Your task to perform on an android device: Go to privacy settings Image 0: 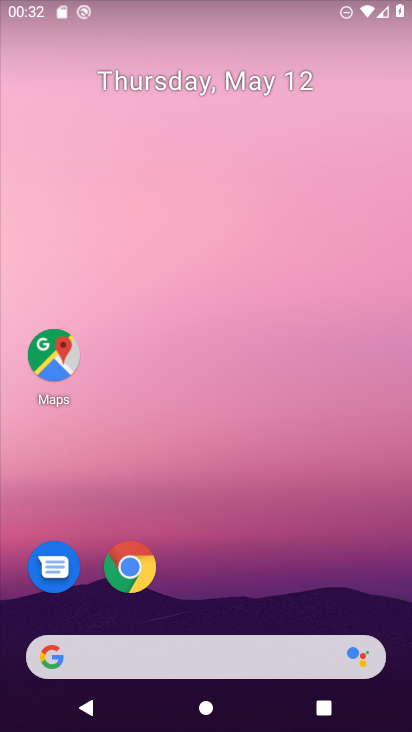
Step 0: drag from (230, 699) to (227, 112)
Your task to perform on an android device: Go to privacy settings Image 1: 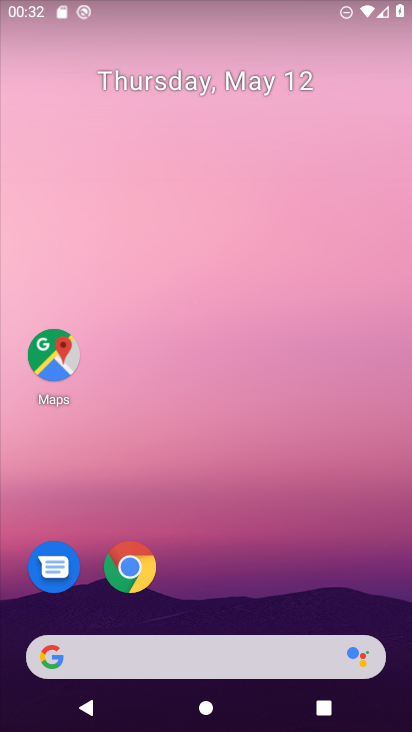
Step 1: drag from (280, 706) to (237, 394)
Your task to perform on an android device: Go to privacy settings Image 2: 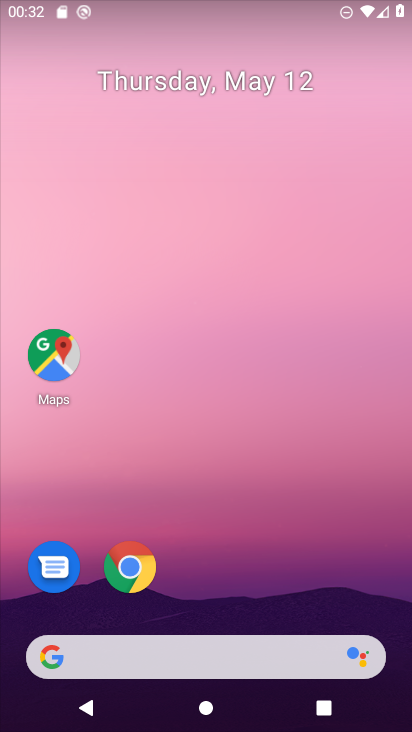
Step 2: drag from (297, 698) to (203, 288)
Your task to perform on an android device: Go to privacy settings Image 3: 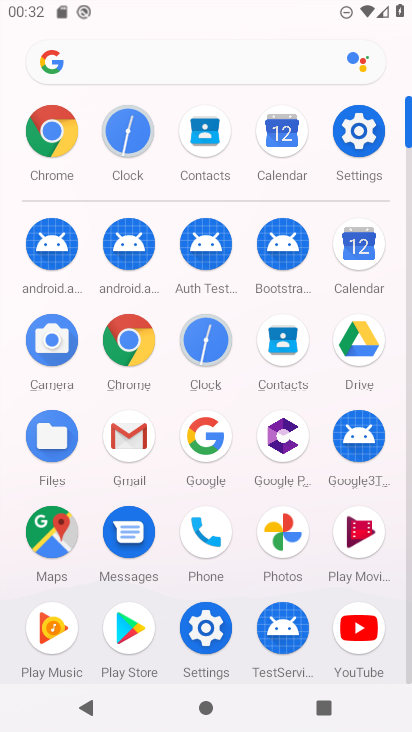
Step 3: click (347, 146)
Your task to perform on an android device: Go to privacy settings Image 4: 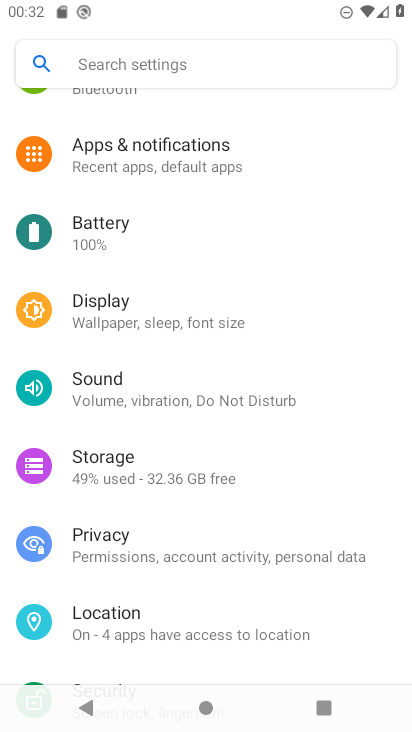
Step 4: drag from (320, 165) to (314, 674)
Your task to perform on an android device: Go to privacy settings Image 5: 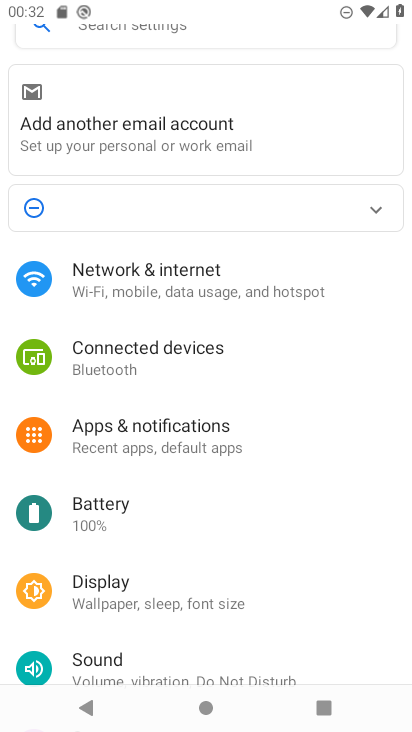
Step 5: drag from (246, 631) to (306, 4)
Your task to perform on an android device: Go to privacy settings Image 6: 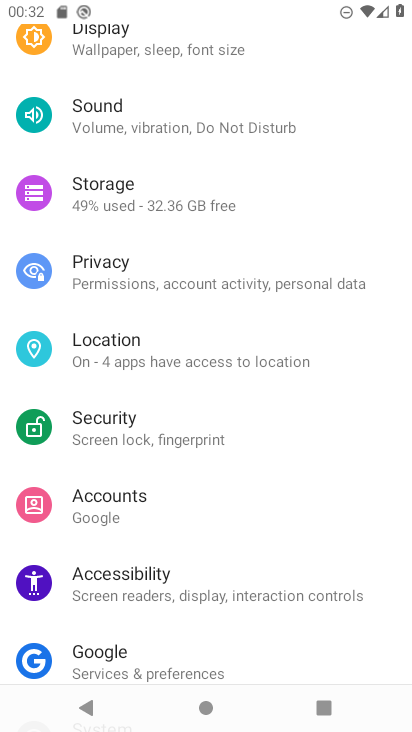
Step 6: click (197, 283)
Your task to perform on an android device: Go to privacy settings Image 7: 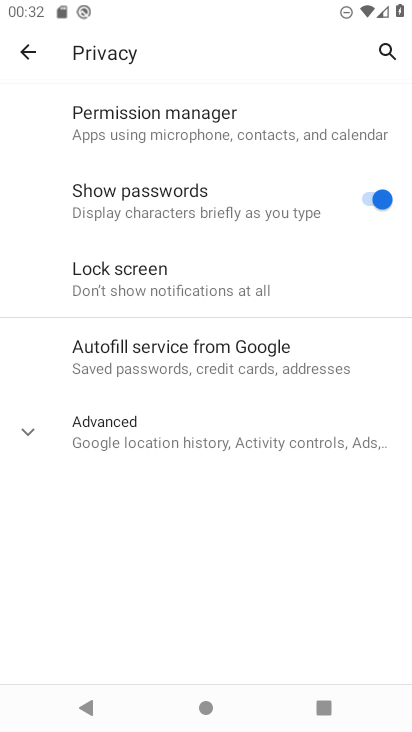
Step 7: task complete